Your task to perform on an android device: Go to accessibility settings Image 0: 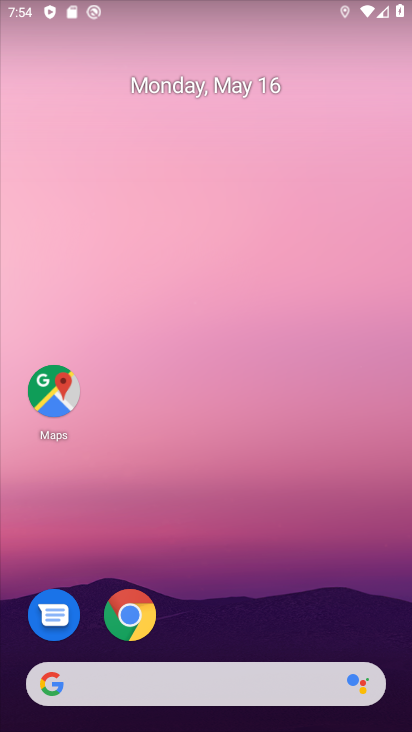
Step 0: drag from (206, 643) to (158, 116)
Your task to perform on an android device: Go to accessibility settings Image 1: 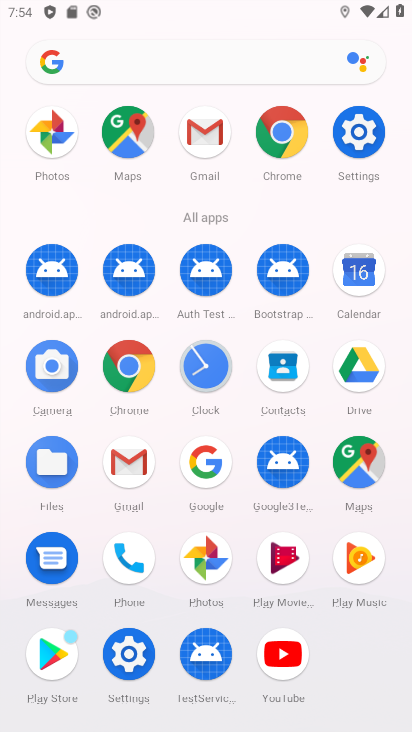
Step 1: click (364, 124)
Your task to perform on an android device: Go to accessibility settings Image 2: 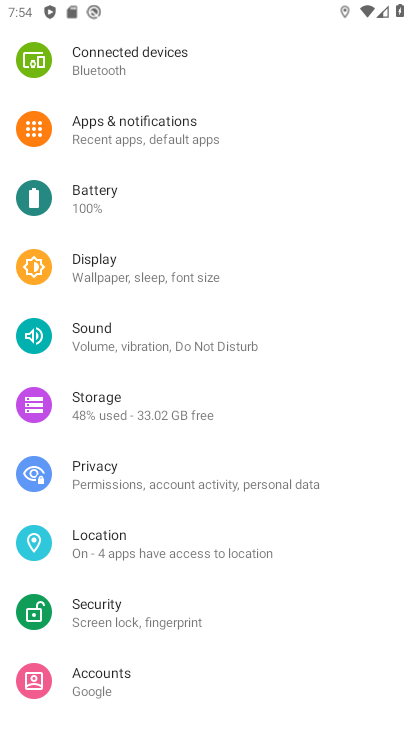
Step 2: drag from (95, 593) to (132, 201)
Your task to perform on an android device: Go to accessibility settings Image 3: 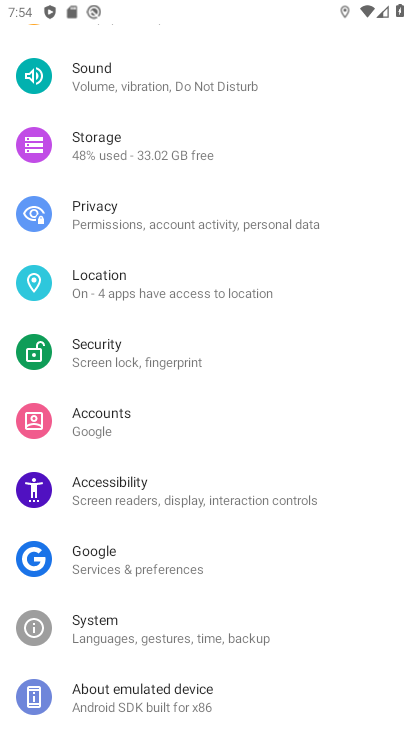
Step 3: click (113, 502)
Your task to perform on an android device: Go to accessibility settings Image 4: 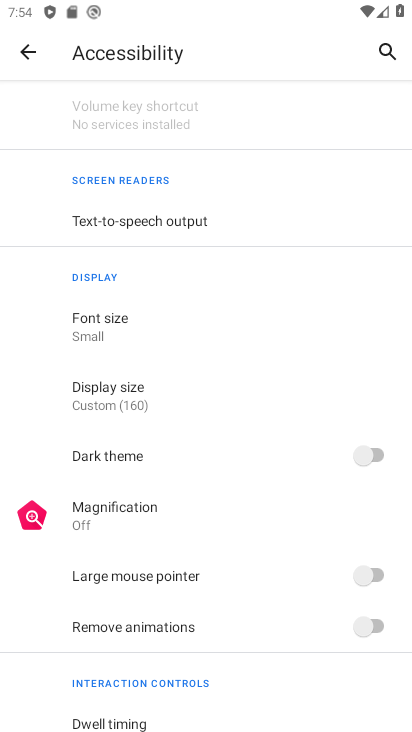
Step 4: task complete